Your task to perform on an android device: turn off notifications in google photos Image 0: 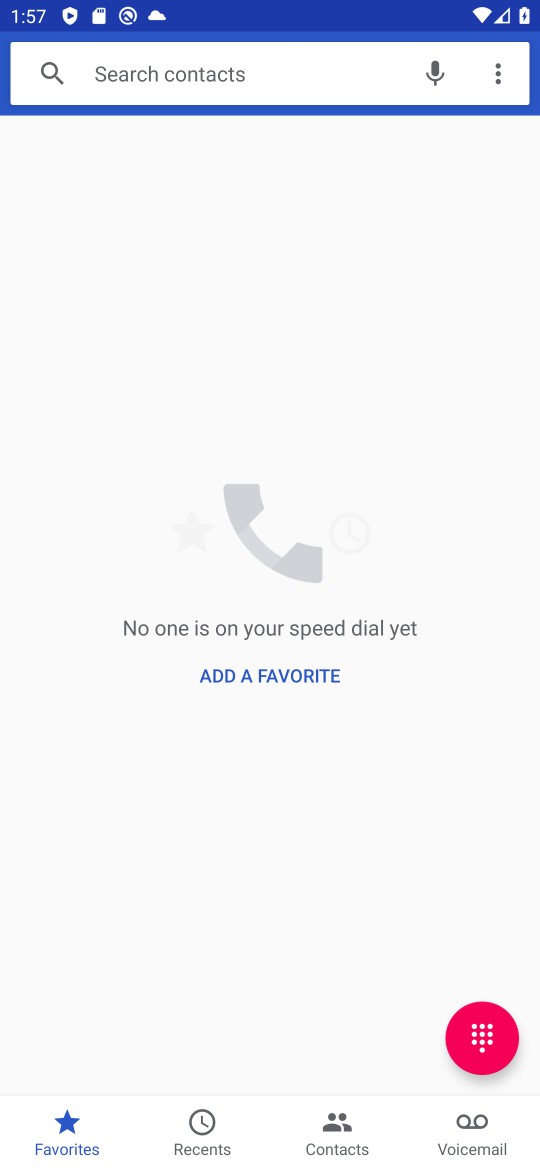
Step 0: press home button
Your task to perform on an android device: turn off notifications in google photos Image 1: 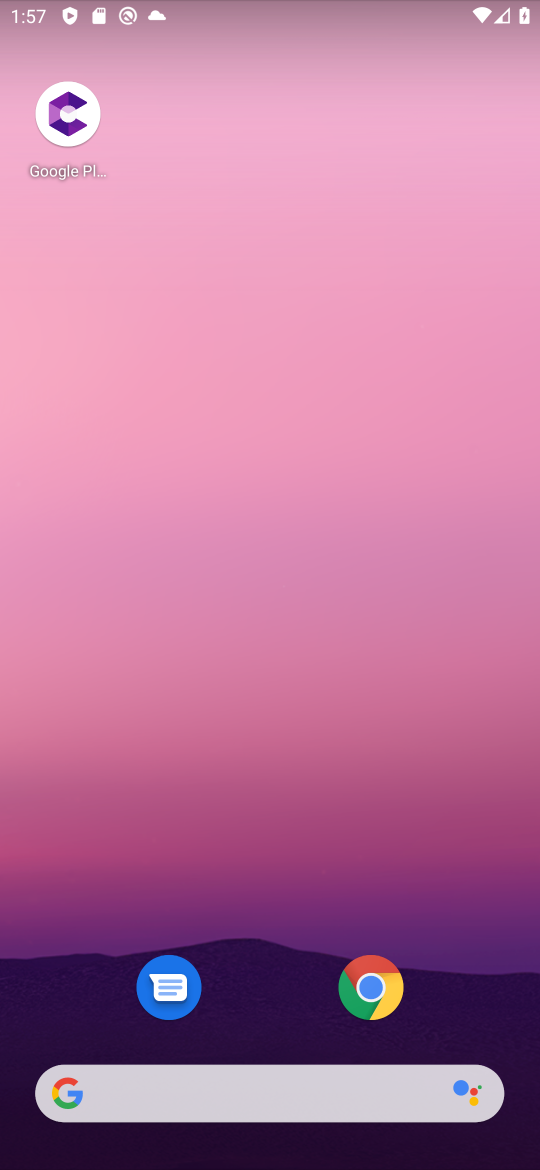
Step 1: drag from (224, 1150) to (376, 138)
Your task to perform on an android device: turn off notifications in google photos Image 2: 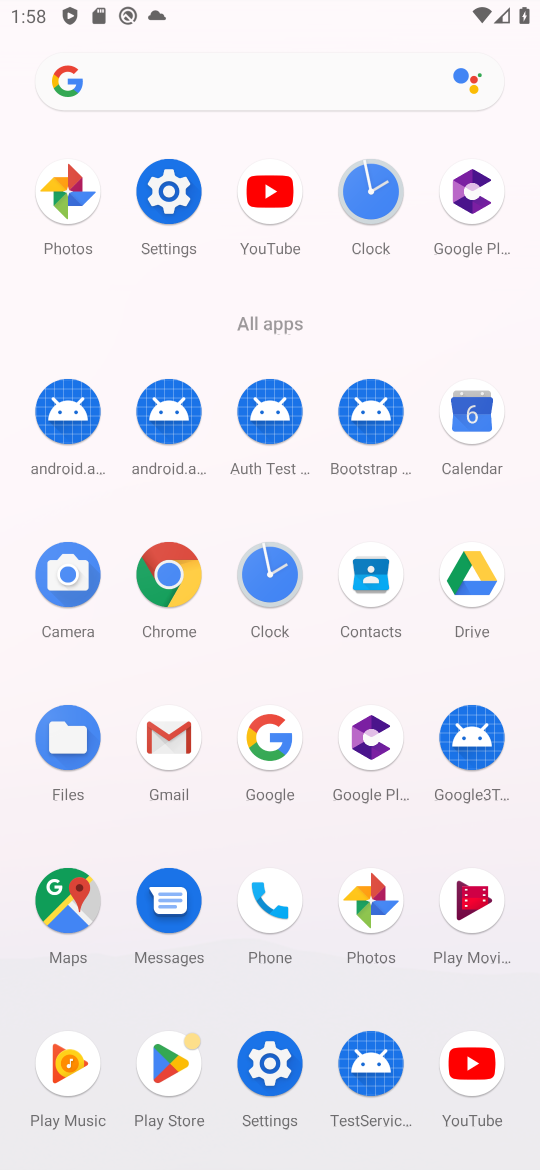
Step 2: click (66, 180)
Your task to perform on an android device: turn off notifications in google photos Image 3: 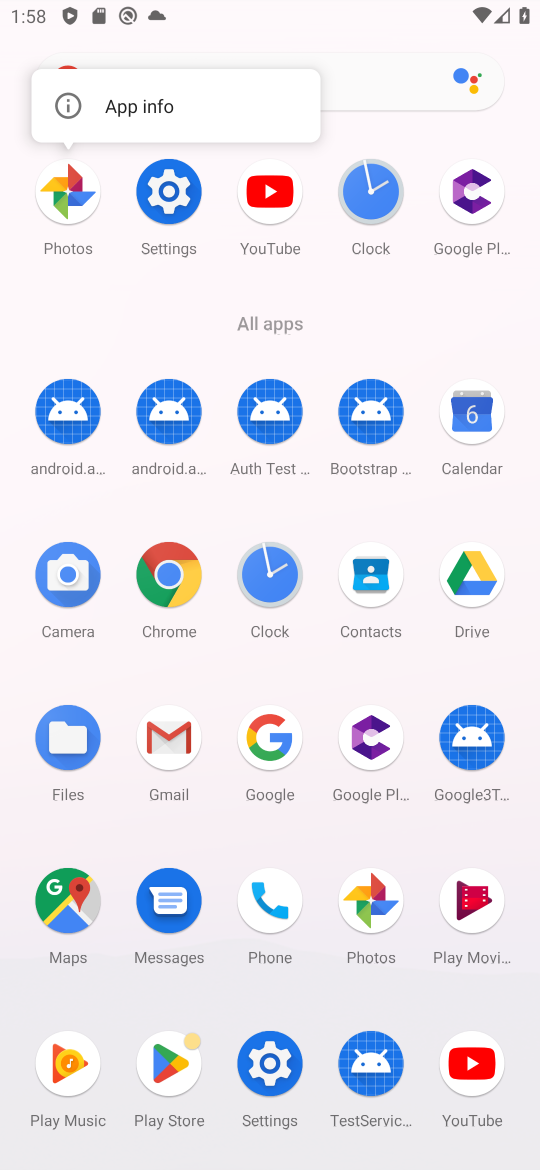
Step 3: click (153, 105)
Your task to perform on an android device: turn off notifications in google photos Image 4: 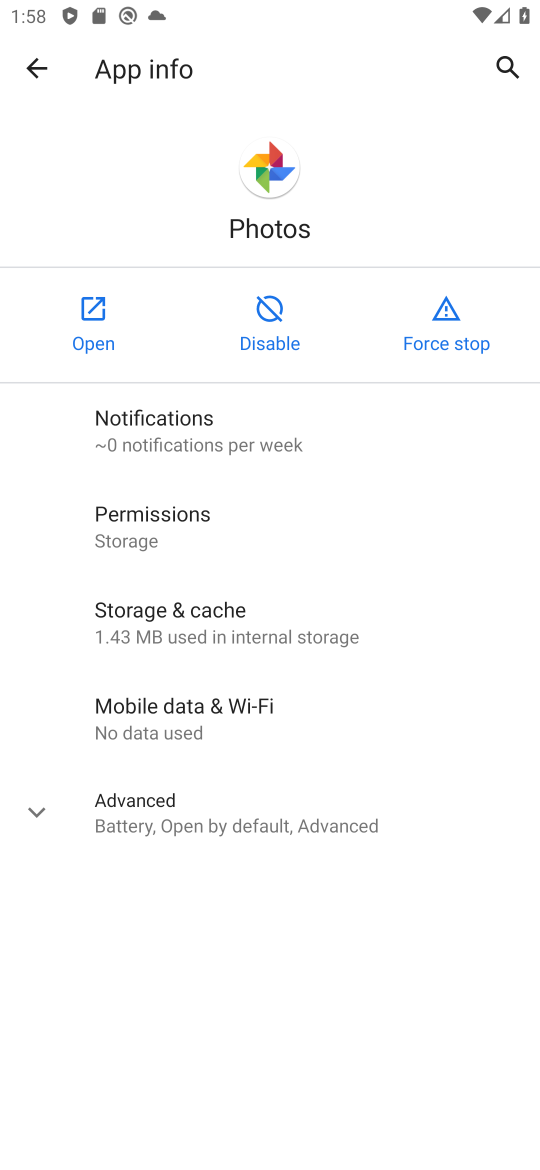
Step 4: click (261, 441)
Your task to perform on an android device: turn off notifications in google photos Image 5: 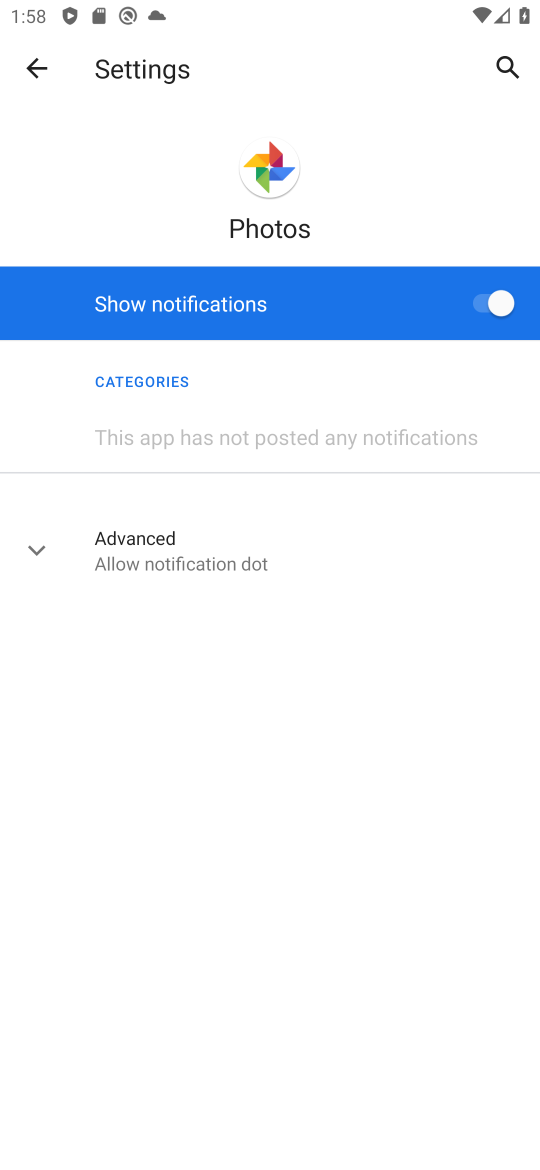
Step 5: click (482, 314)
Your task to perform on an android device: turn off notifications in google photos Image 6: 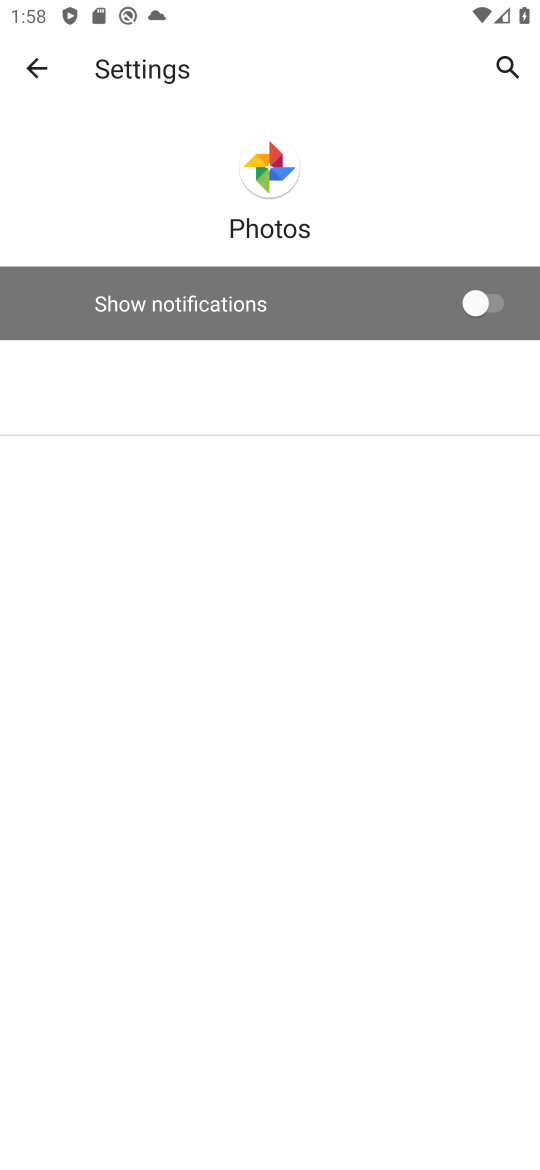
Step 6: task complete